Your task to perform on an android device: turn off location history Image 0: 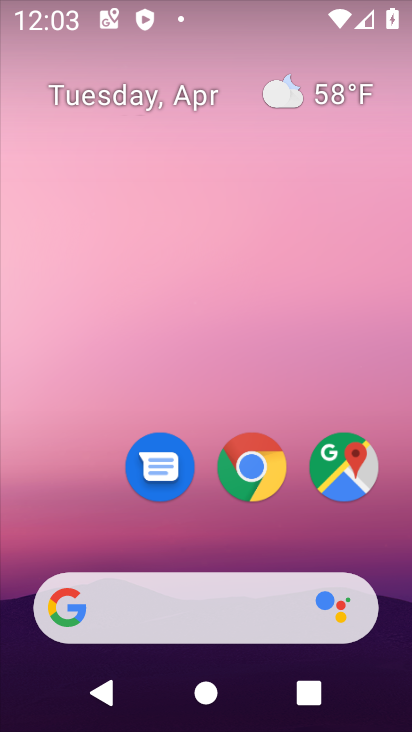
Step 0: drag from (266, 13) to (234, 620)
Your task to perform on an android device: turn off location history Image 1: 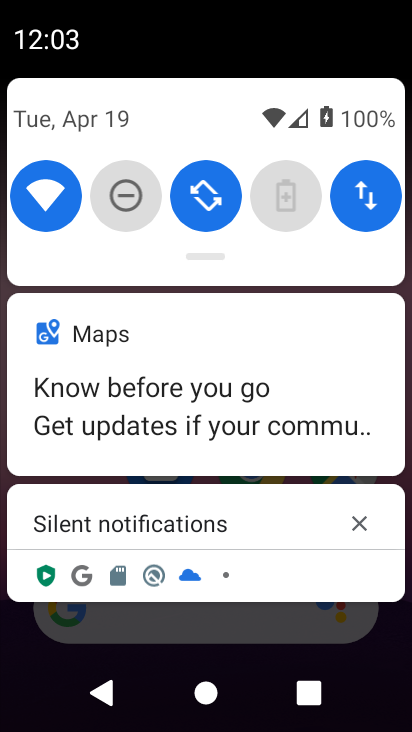
Step 1: drag from (205, 124) to (216, 692)
Your task to perform on an android device: turn off location history Image 2: 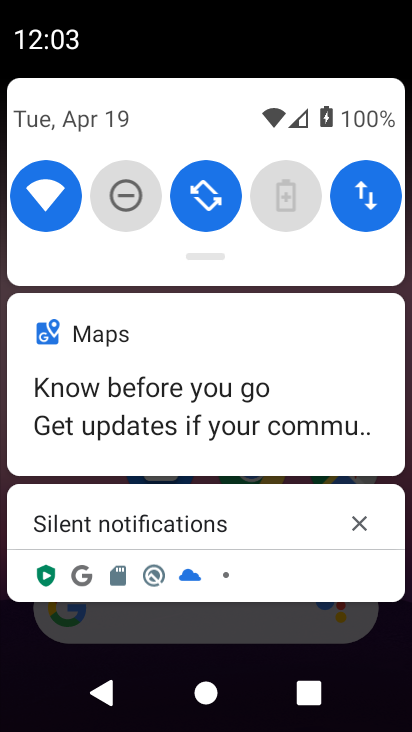
Step 2: drag from (193, 98) to (158, 543)
Your task to perform on an android device: turn off location history Image 3: 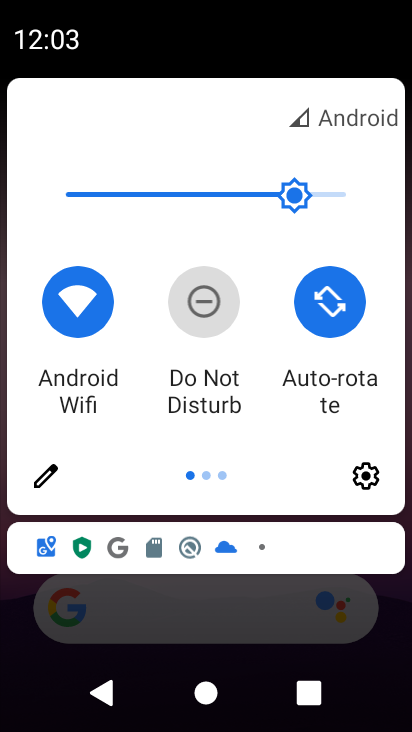
Step 3: click (362, 472)
Your task to perform on an android device: turn off location history Image 4: 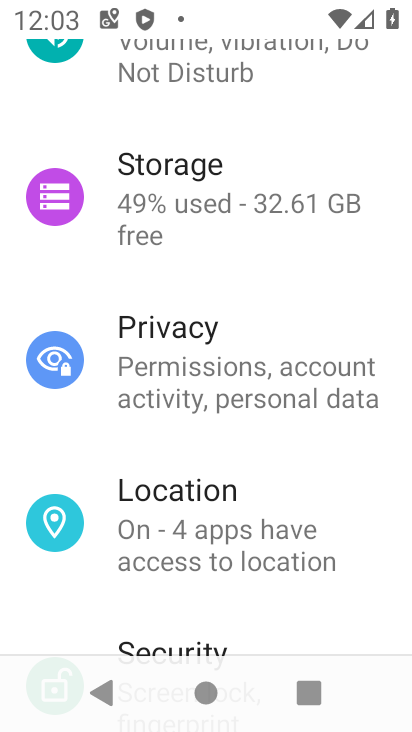
Step 4: click (247, 534)
Your task to perform on an android device: turn off location history Image 5: 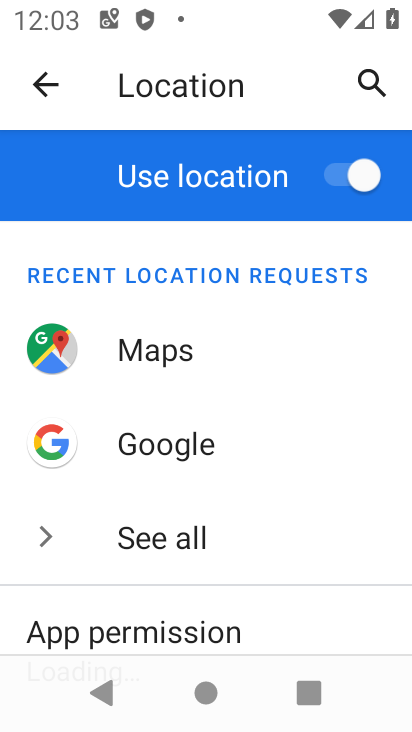
Step 5: click (342, 186)
Your task to perform on an android device: turn off location history Image 6: 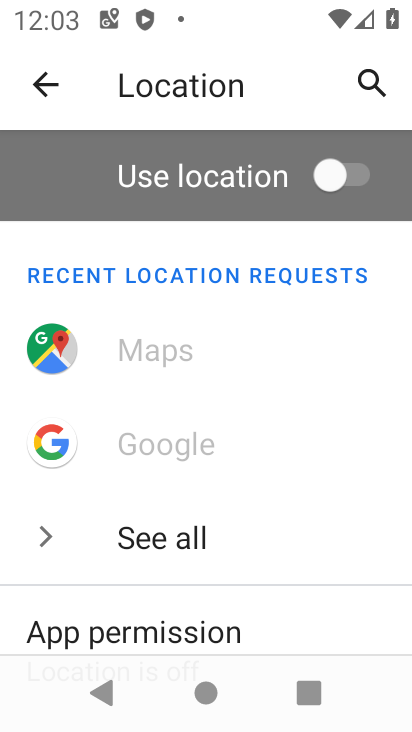
Step 6: task complete